Your task to perform on an android device: toggle sleep mode Image 0: 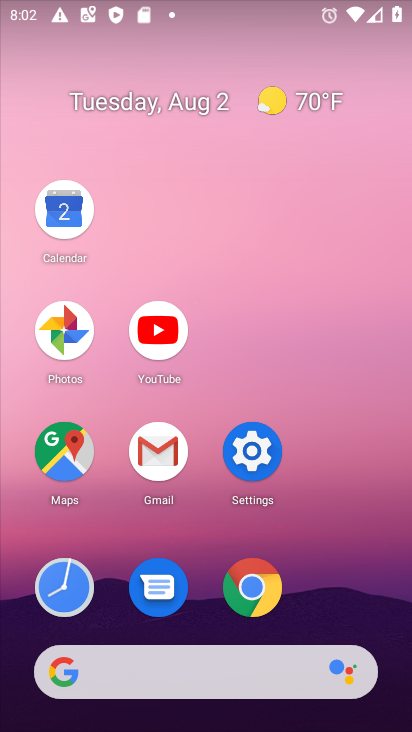
Step 0: click (250, 452)
Your task to perform on an android device: toggle sleep mode Image 1: 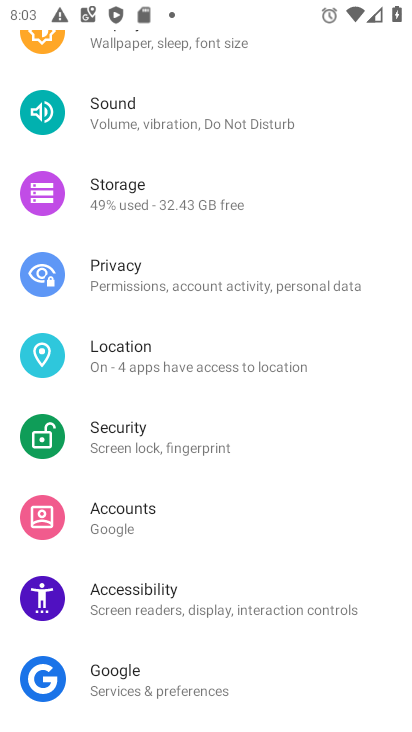
Step 1: drag from (239, 160) to (214, 457)
Your task to perform on an android device: toggle sleep mode Image 2: 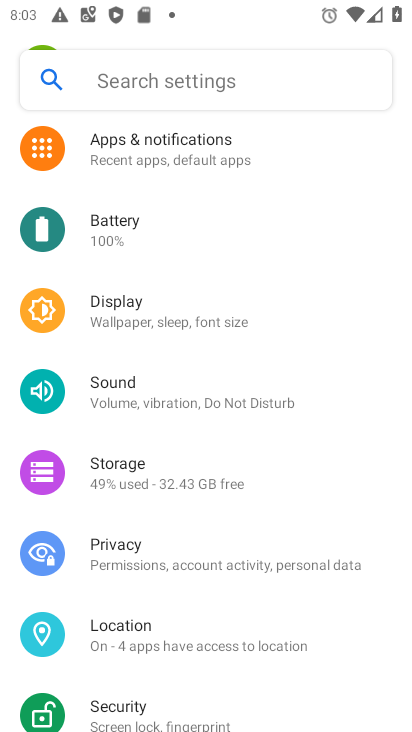
Step 2: click (118, 303)
Your task to perform on an android device: toggle sleep mode Image 3: 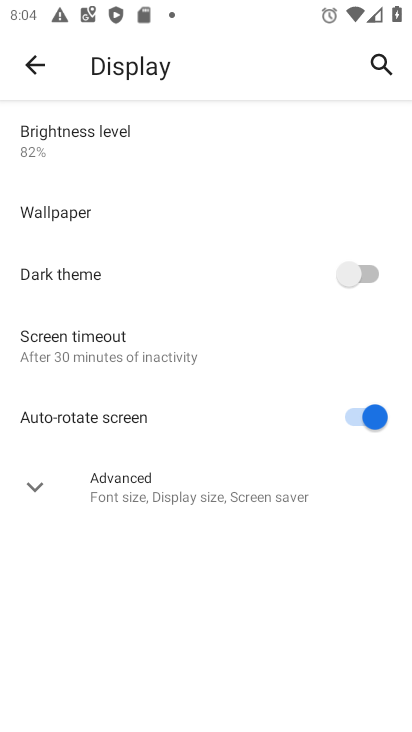
Step 3: click (72, 323)
Your task to perform on an android device: toggle sleep mode Image 4: 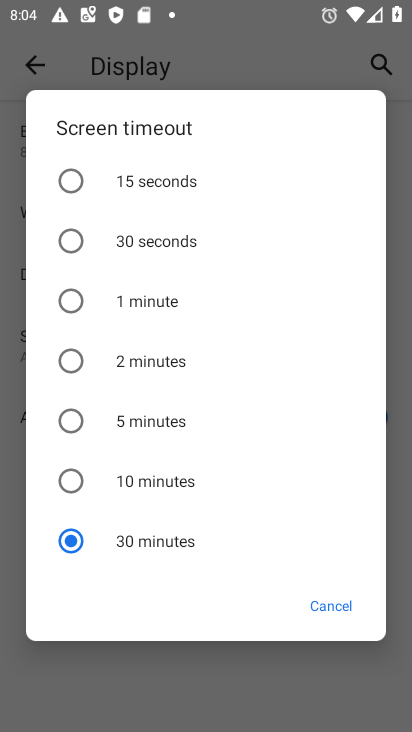
Step 4: click (331, 606)
Your task to perform on an android device: toggle sleep mode Image 5: 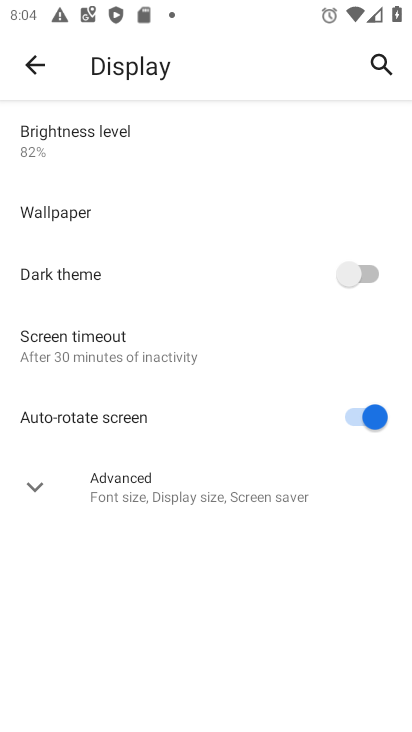
Step 5: task complete